Your task to perform on an android device: View the shopping cart on walmart. Add "acer predator" to the cart on walmart Image 0: 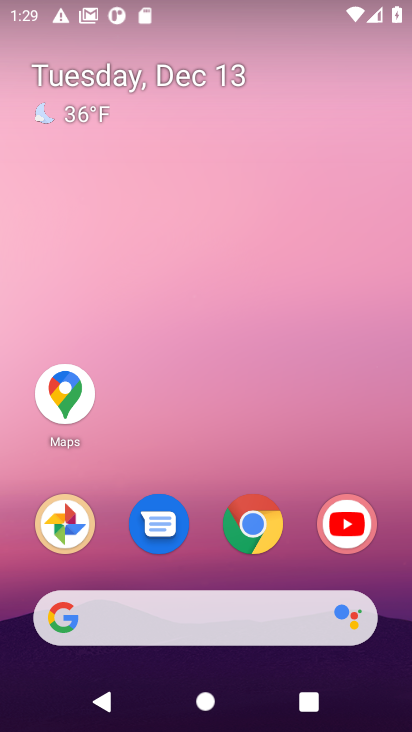
Step 0: click (256, 519)
Your task to perform on an android device: View the shopping cart on walmart. Add "acer predator" to the cart on walmart Image 1: 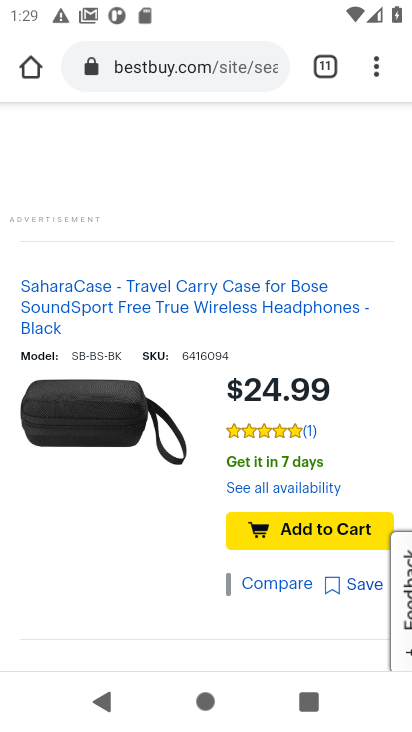
Step 1: click (130, 69)
Your task to perform on an android device: View the shopping cart on walmart. Add "acer predator" to the cart on walmart Image 2: 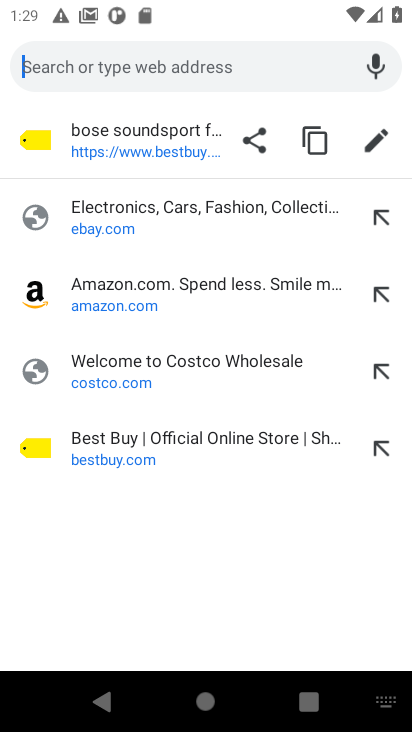
Step 2: type "walmart.com"
Your task to perform on an android device: View the shopping cart on walmart. Add "acer predator" to the cart on walmart Image 3: 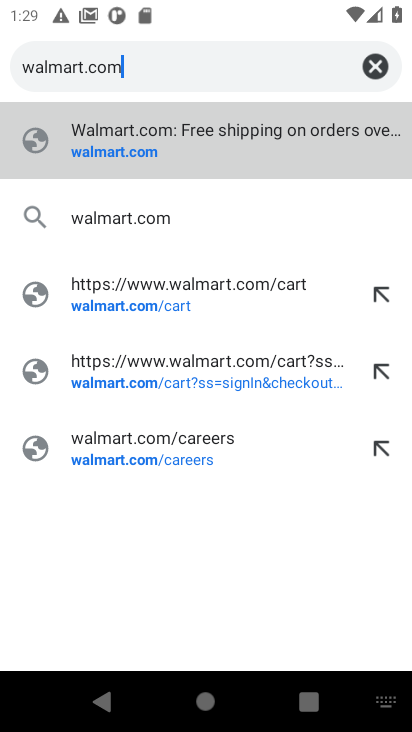
Step 3: click (145, 155)
Your task to perform on an android device: View the shopping cart on walmart. Add "acer predator" to the cart on walmart Image 4: 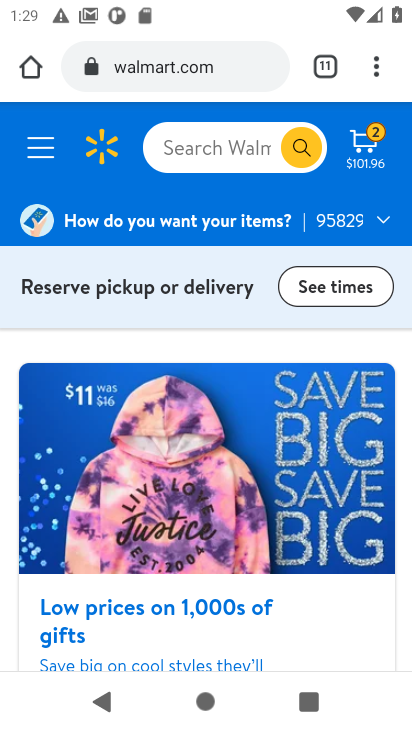
Step 4: click (362, 144)
Your task to perform on an android device: View the shopping cart on walmart. Add "acer predator" to the cart on walmart Image 5: 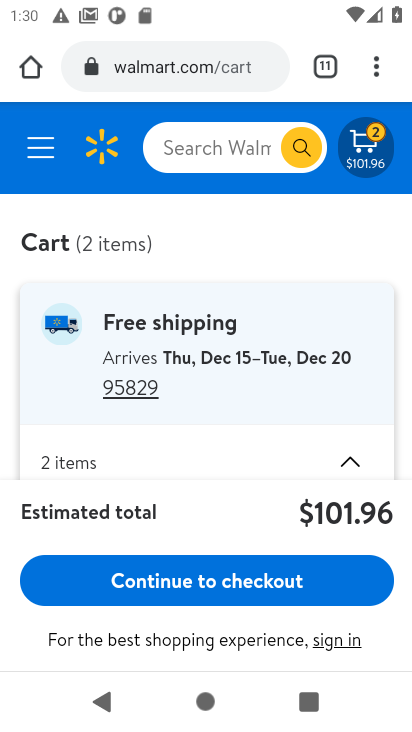
Step 5: drag from (274, 382) to (281, 164)
Your task to perform on an android device: View the shopping cart on walmart. Add "acer predator" to the cart on walmart Image 6: 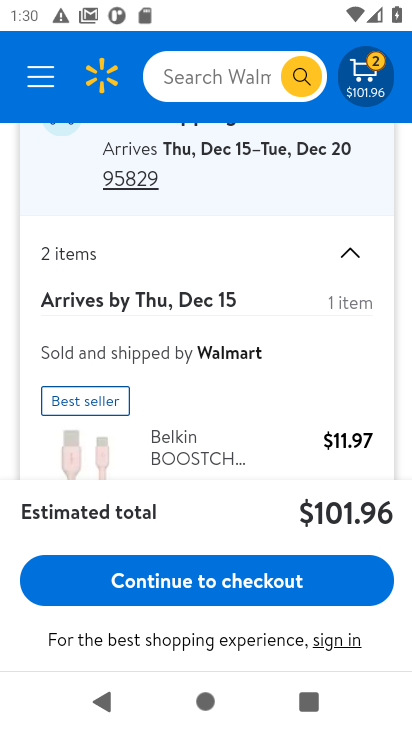
Step 6: click (190, 69)
Your task to perform on an android device: View the shopping cart on walmart. Add "acer predator" to the cart on walmart Image 7: 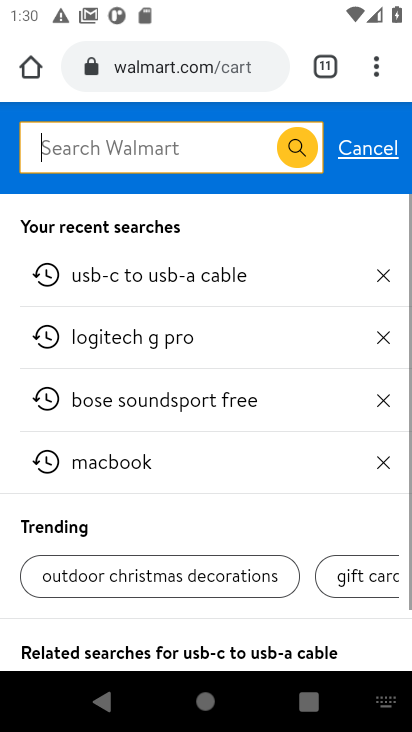
Step 7: type "acer predator"
Your task to perform on an android device: View the shopping cart on walmart. Add "acer predator" to the cart on walmart Image 8: 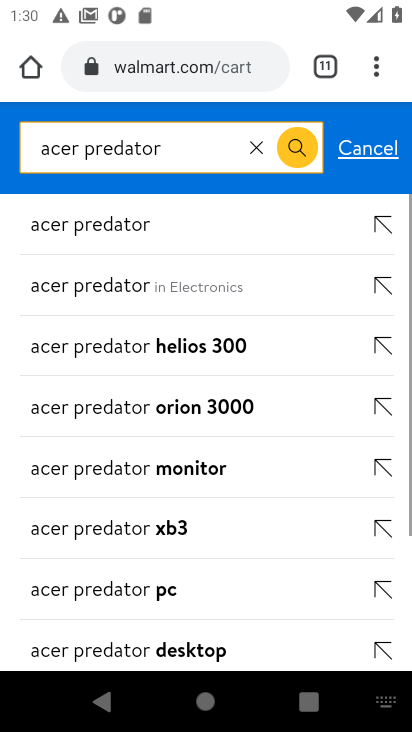
Step 8: click (110, 228)
Your task to perform on an android device: View the shopping cart on walmart. Add "acer predator" to the cart on walmart Image 9: 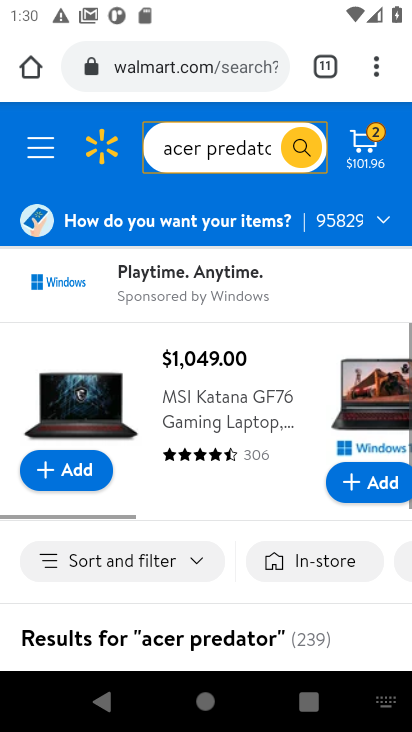
Step 9: drag from (202, 475) to (200, 225)
Your task to perform on an android device: View the shopping cart on walmart. Add "acer predator" to the cart on walmart Image 10: 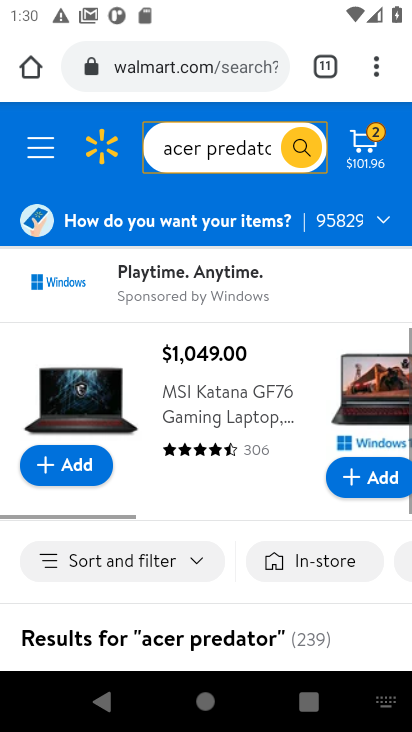
Step 10: drag from (206, 555) to (202, 240)
Your task to perform on an android device: View the shopping cart on walmart. Add "acer predator" to the cart on walmart Image 11: 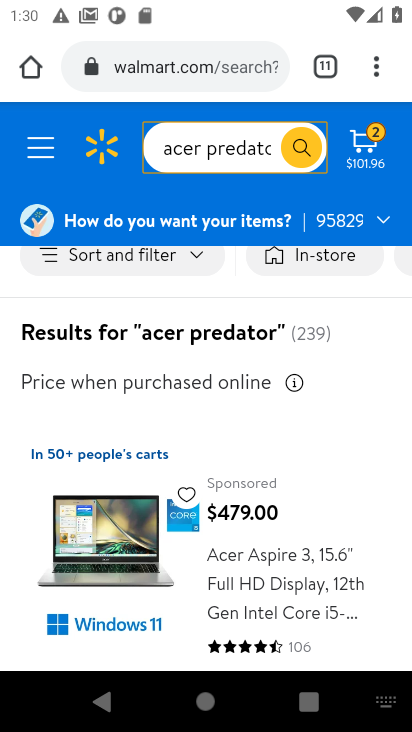
Step 11: drag from (189, 477) to (196, 290)
Your task to perform on an android device: View the shopping cart on walmart. Add "acer predator" to the cart on walmart Image 12: 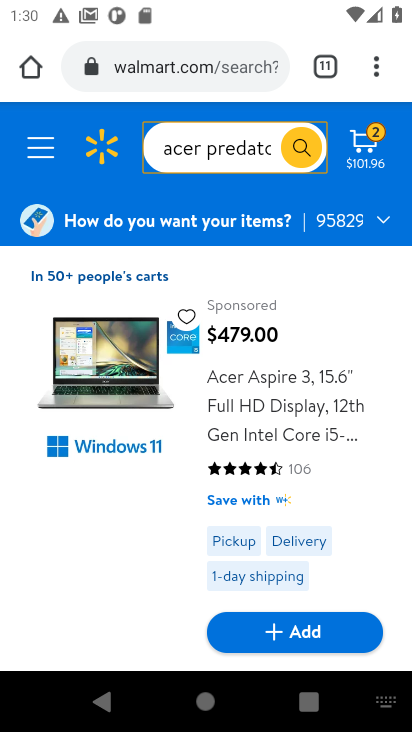
Step 12: drag from (200, 498) to (192, 252)
Your task to perform on an android device: View the shopping cart on walmart. Add "acer predator" to the cart on walmart Image 13: 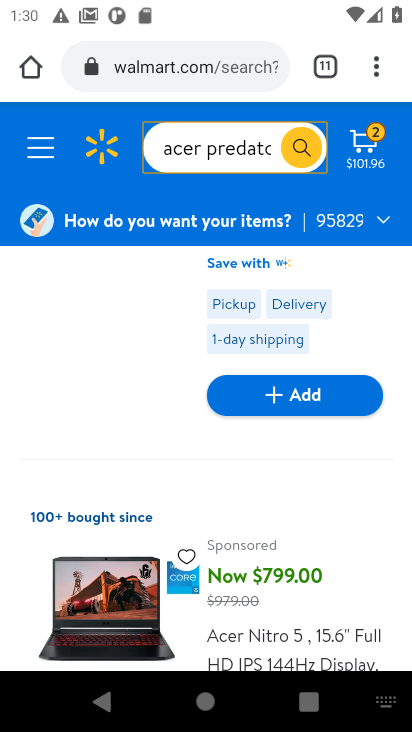
Step 13: drag from (192, 568) to (192, 326)
Your task to perform on an android device: View the shopping cart on walmart. Add "acer predator" to the cart on walmart Image 14: 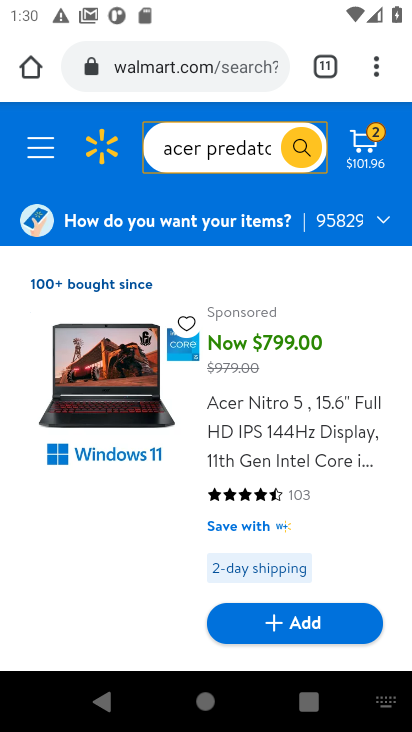
Step 14: drag from (192, 571) to (192, 285)
Your task to perform on an android device: View the shopping cart on walmart. Add "acer predator" to the cart on walmart Image 15: 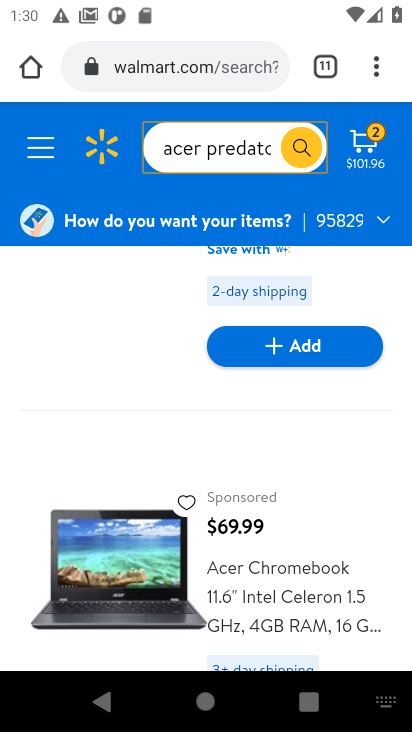
Step 15: drag from (192, 592) to (187, 356)
Your task to perform on an android device: View the shopping cart on walmart. Add "acer predator" to the cart on walmart Image 16: 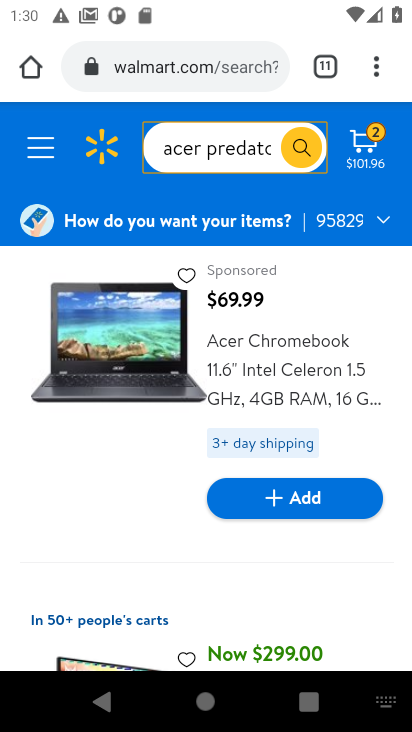
Step 16: drag from (165, 627) to (164, 246)
Your task to perform on an android device: View the shopping cart on walmart. Add "acer predator" to the cart on walmart Image 17: 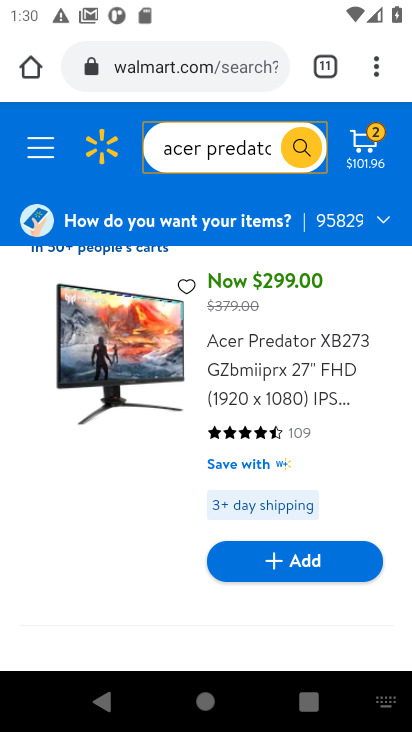
Step 17: click (261, 556)
Your task to perform on an android device: View the shopping cart on walmart. Add "acer predator" to the cart on walmart Image 18: 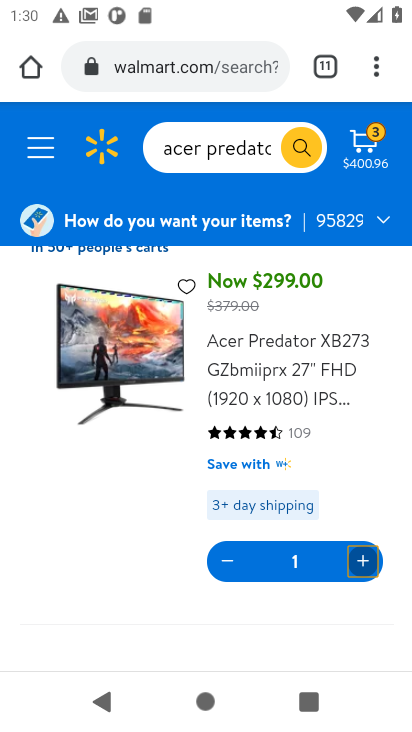
Step 18: task complete